Your task to perform on an android device: Go to eBay Image 0: 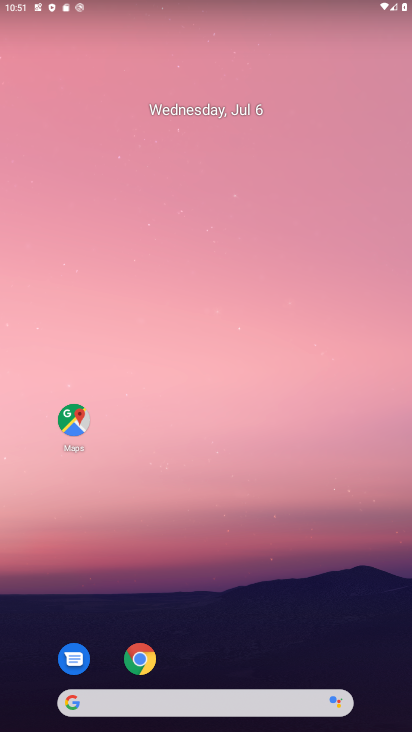
Step 0: click (139, 661)
Your task to perform on an android device: Go to eBay Image 1: 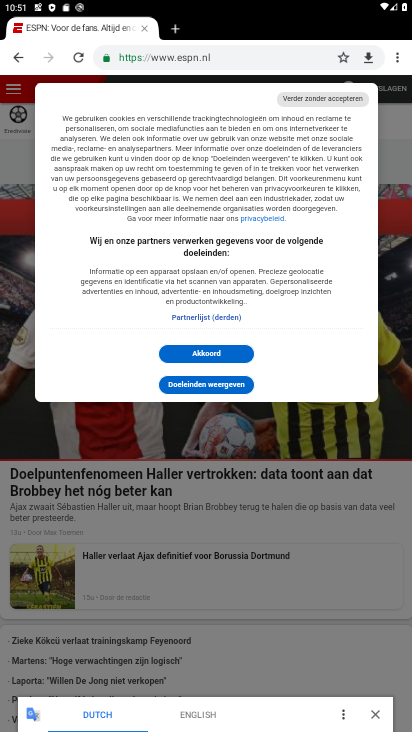
Step 1: click (206, 356)
Your task to perform on an android device: Go to eBay Image 2: 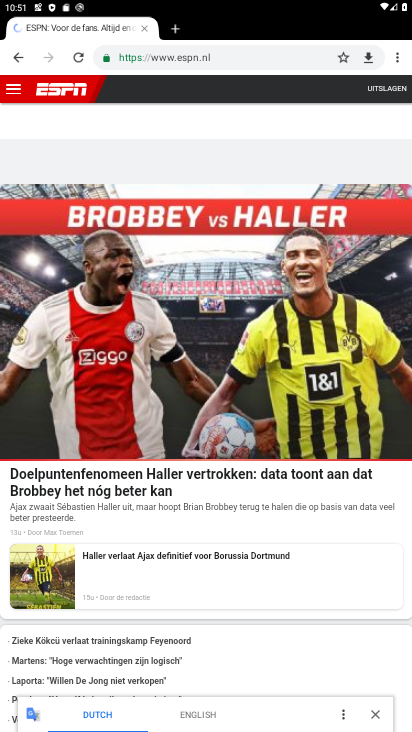
Step 2: click (398, 52)
Your task to perform on an android device: Go to eBay Image 3: 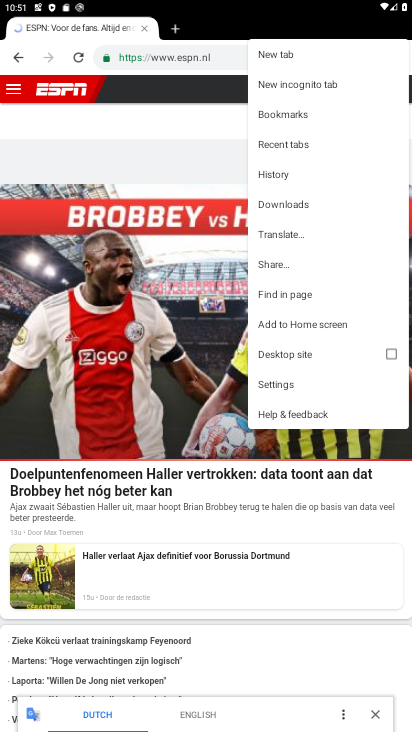
Step 3: click (291, 52)
Your task to perform on an android device: Go to eBay Image 4: 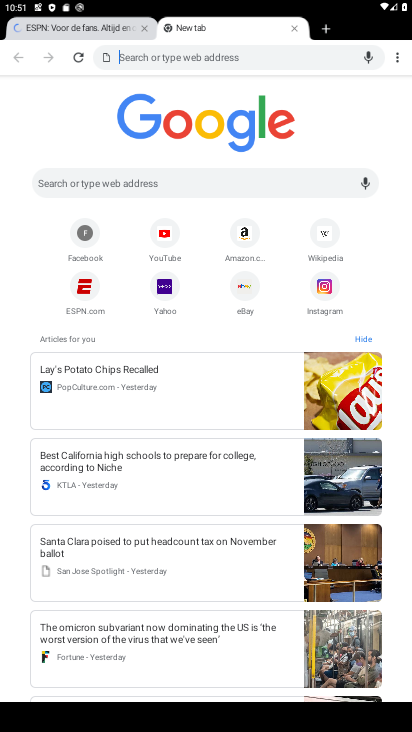
Step 4: click (245, 293)
Your task to perform on an android device: Go to eBay Image 5: 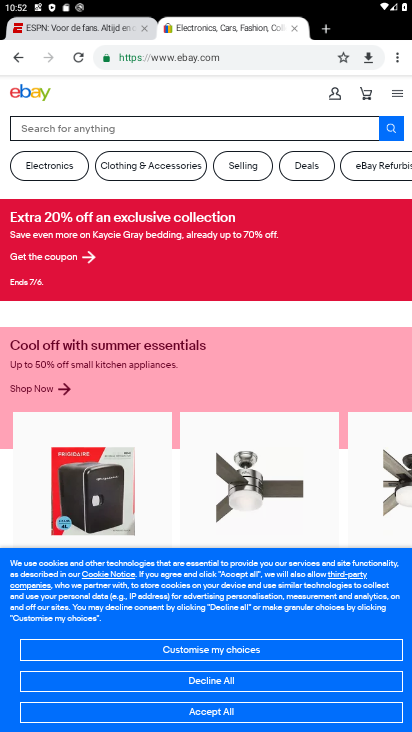
Step 5: task complete